Your task to perform on an android device: Go to location settings Image 0: 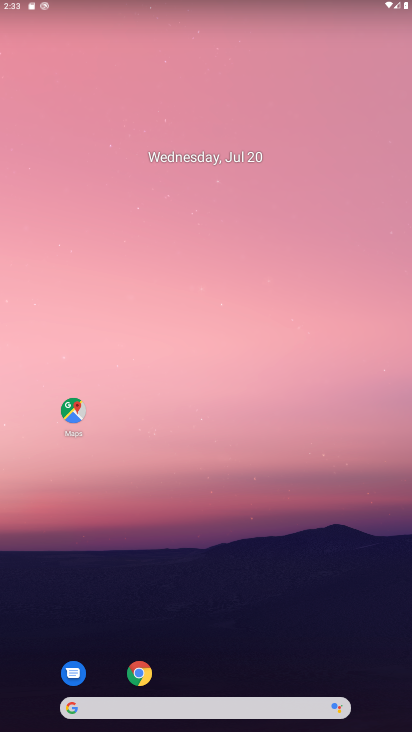
Step 0: drag from (199, 637) to (201, 364)
Your task to perform on an android device: Go to location settings Image 1: 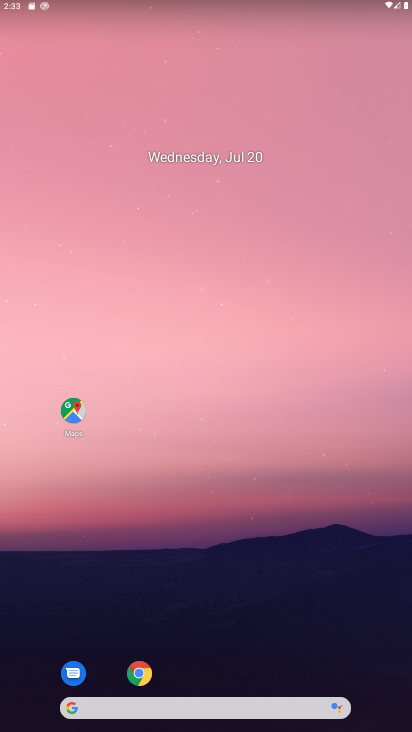
Step 1: drag from (200, 691) to (251, 357)
Your task to perform on an android device: Go to location settings Image 2: 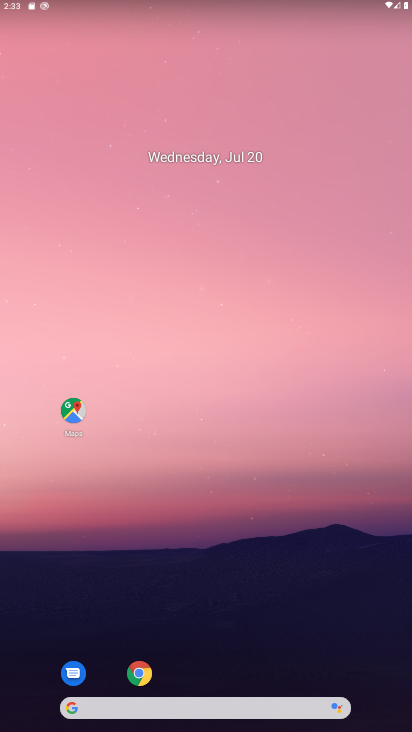
Step 2: drag from (240, 654) to (246, 2)
Your task to perform on an android device: Go to location settings Image 3: 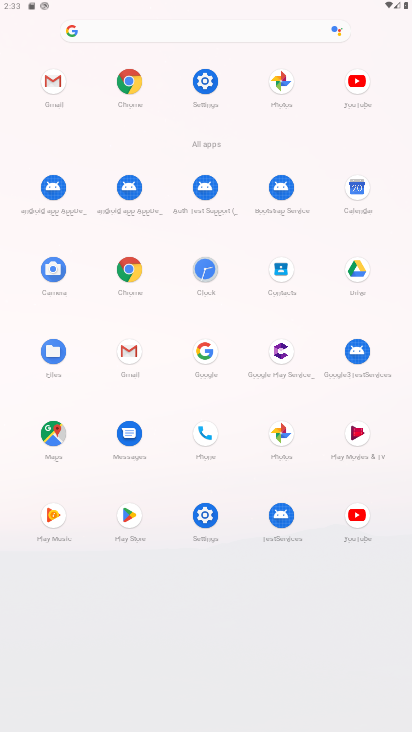
Step 3: click (211, 518)
Your task to perform on an android device: Go to location settings Image 4: 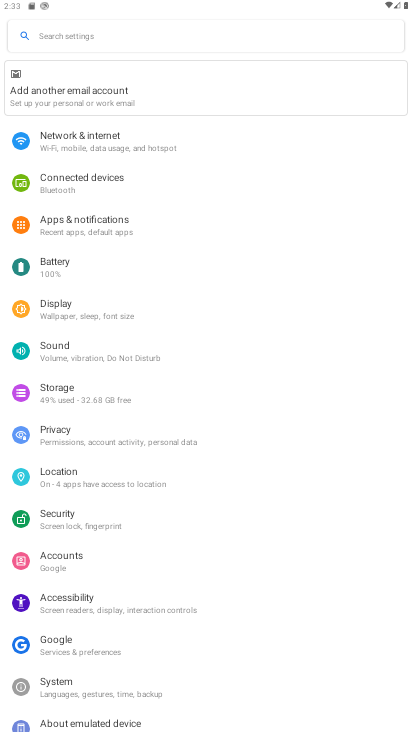
Step 4: click (107, 484)
Your task to perform on an android device: Go to location settings Image 5: 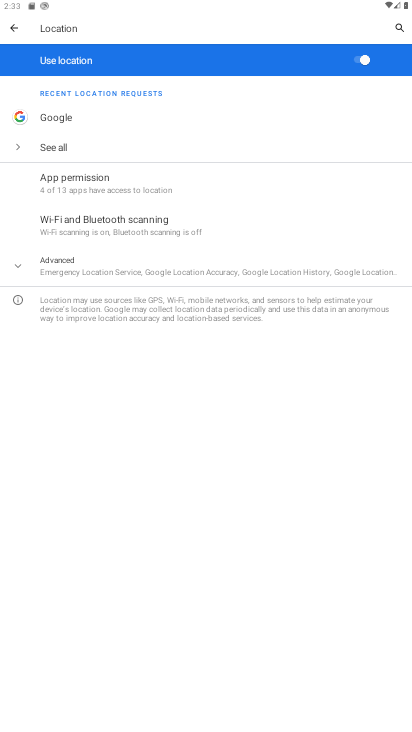
Step 5: task complete